Your task to perform on an android device: Search for shimano brake pads on Walmart Image 0: 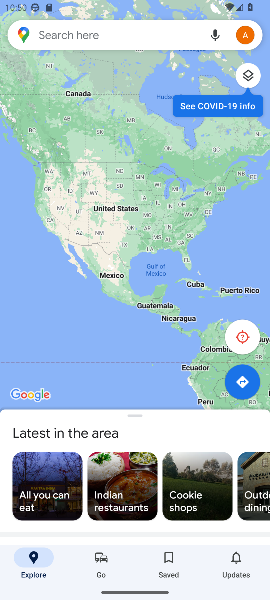
Step 0: press home button
Your task to perform on an android device: Search for shimano brake pads on Walmart Image 1: 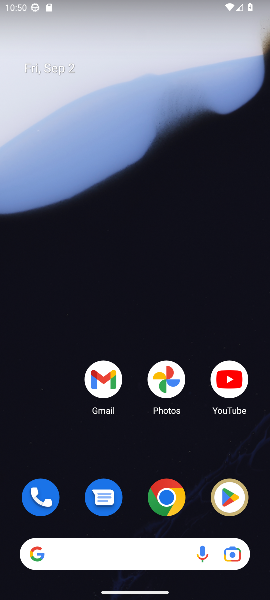
Step 1: drag from (133, 511) to (152, 96)
Your task to perform on an android device: Search for shimano brake pads on Walmart Image 2: 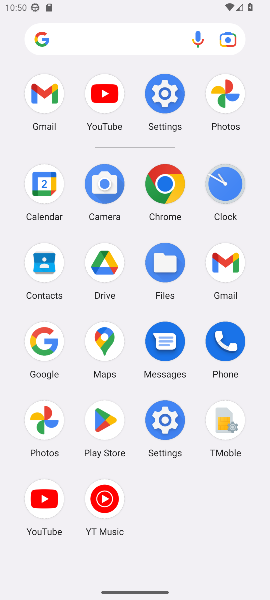
Step 2: click (39, 350)
Your task to perform on an android device: Search for shimano brake pads on Walmart Image 3: 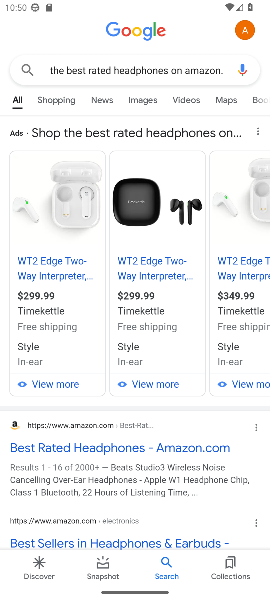
Step 3: click (165, 57)
Your task to perform on an android device: Search for shimano brake pads on Walmart Image 4: 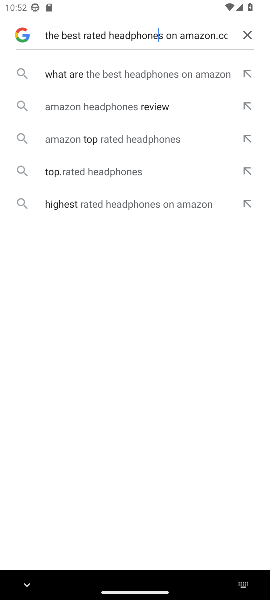
Step 4: click (184, 73)
Your task to perform on an android device: Search for shimano brake pads on Walmart Image 5: 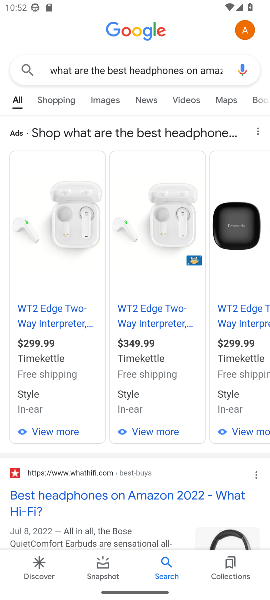
Step 5: task complete